Your task to perform on an android device: allow cookies in the chrome app Image 0: 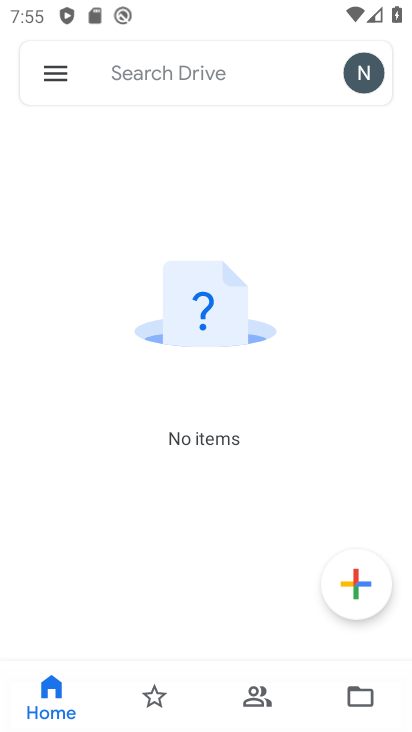
Step 0: press home button
Your task to perform on an android device: allow cookies in the chrome app Image 1: 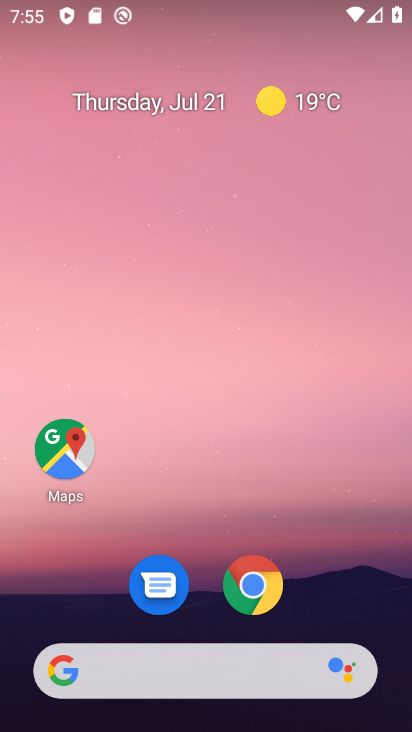
Step 1: click (254, 579)
Your task to perform on an android device: allow cookies in the chrome app Image 2: 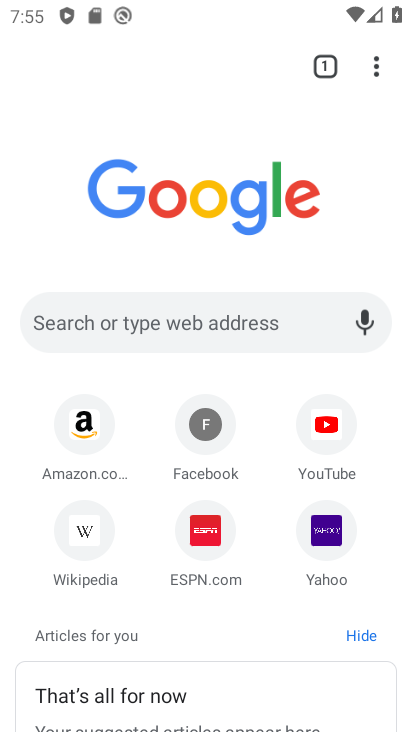
Step 2: click (376, 71)
Your task to perform on an android device: allow cookies in the chrome app Image 3: 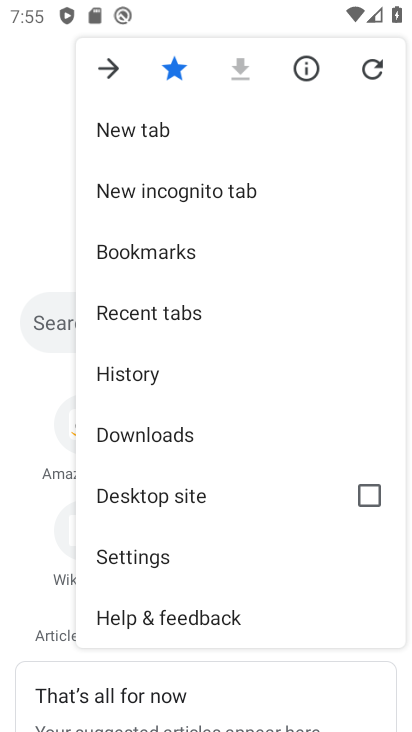
Step 3: click (153, 553)
Your task to perform on an android device: allow cookies in the chrome app Image 4: 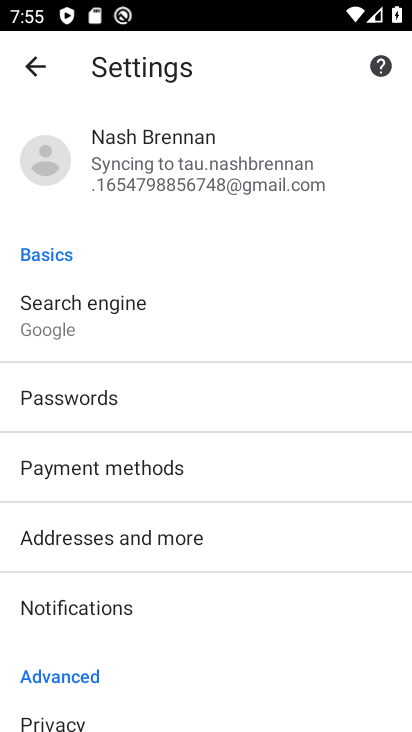
Step 4: drag from (153, 553) to (173, 315)
Your task to perform on an android device: allow cookies in the chrome app Image 5: 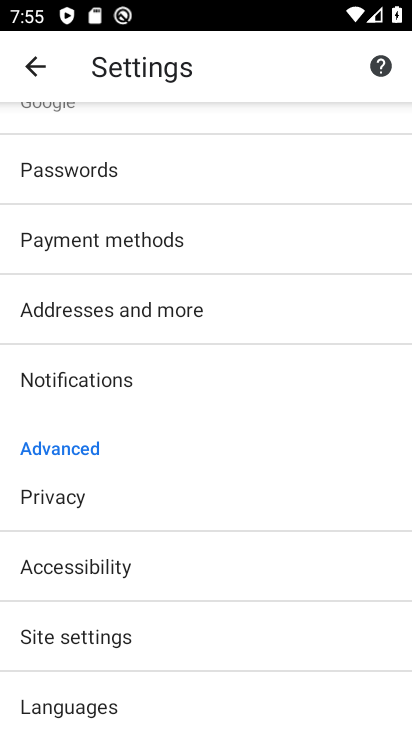
Step 5: click (127, 633)
Your task to perform on an android device: allow cookies in the chrome app Image 6: 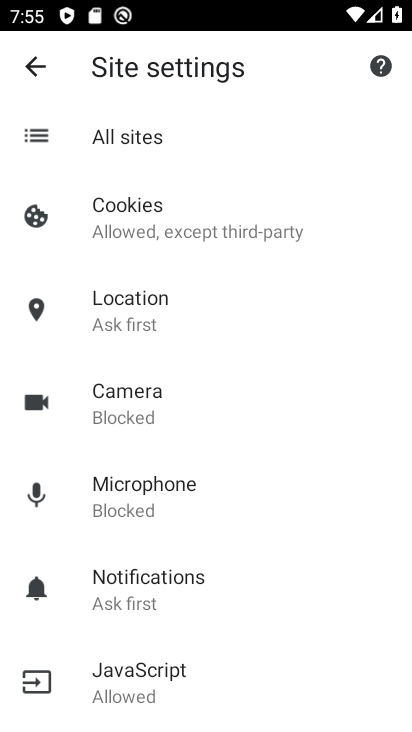
Step 6: click (212, 223)
Your task to perform on an android device: allow cookies in the chrome app Image 7: 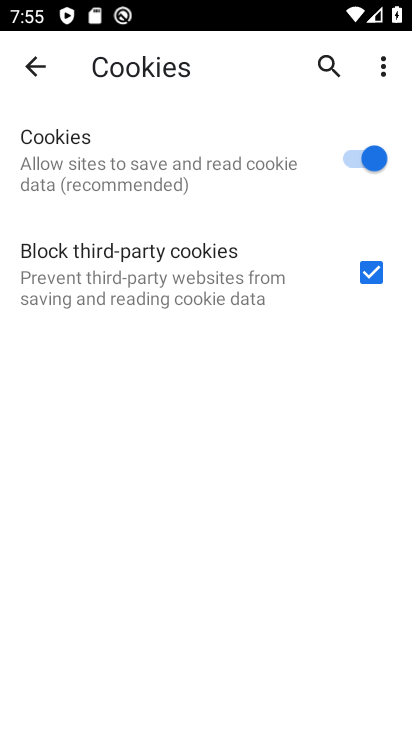
Step 7: task complete